Your task to perform on an android device: Open the calendar and show me this week's events? Image 0: 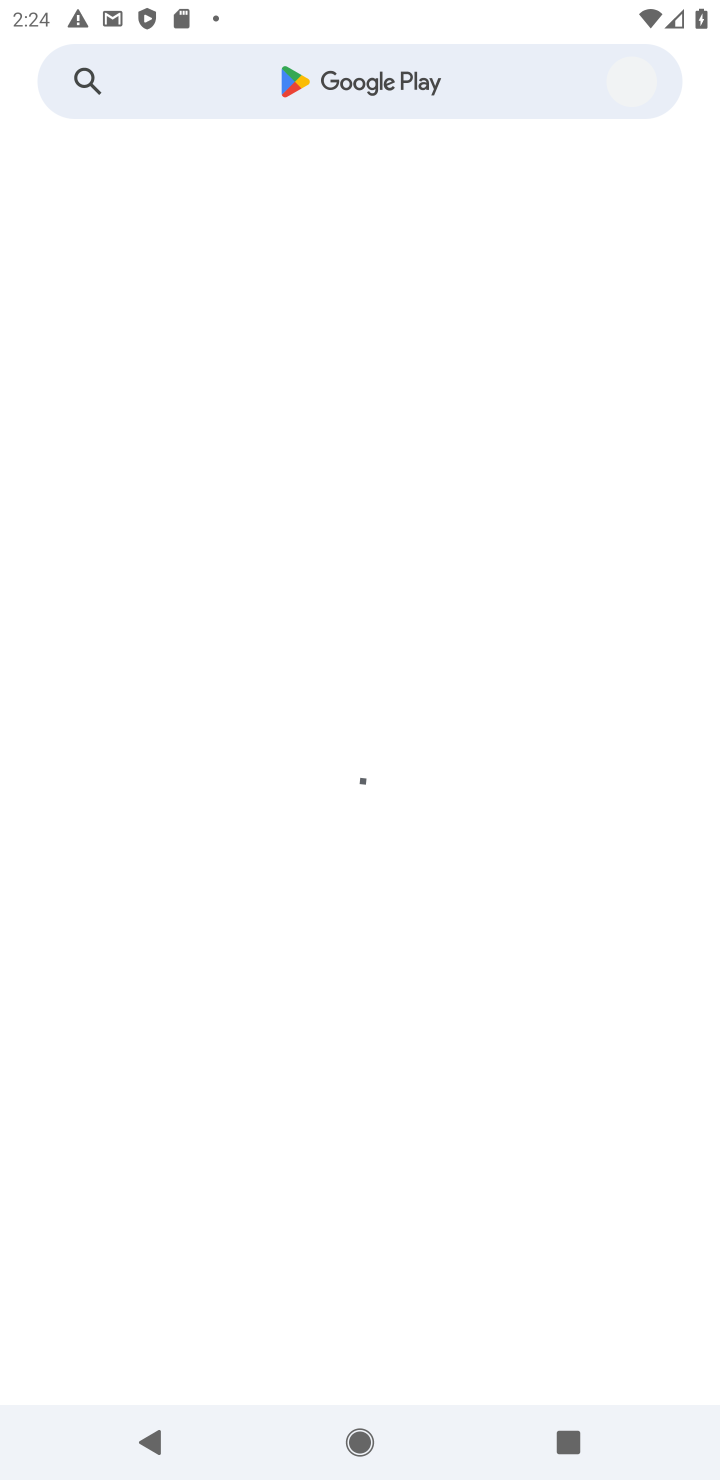
Step 0: press home button
Your task to perform on an android device: Open the calendar and show me this week's events? Image 1: 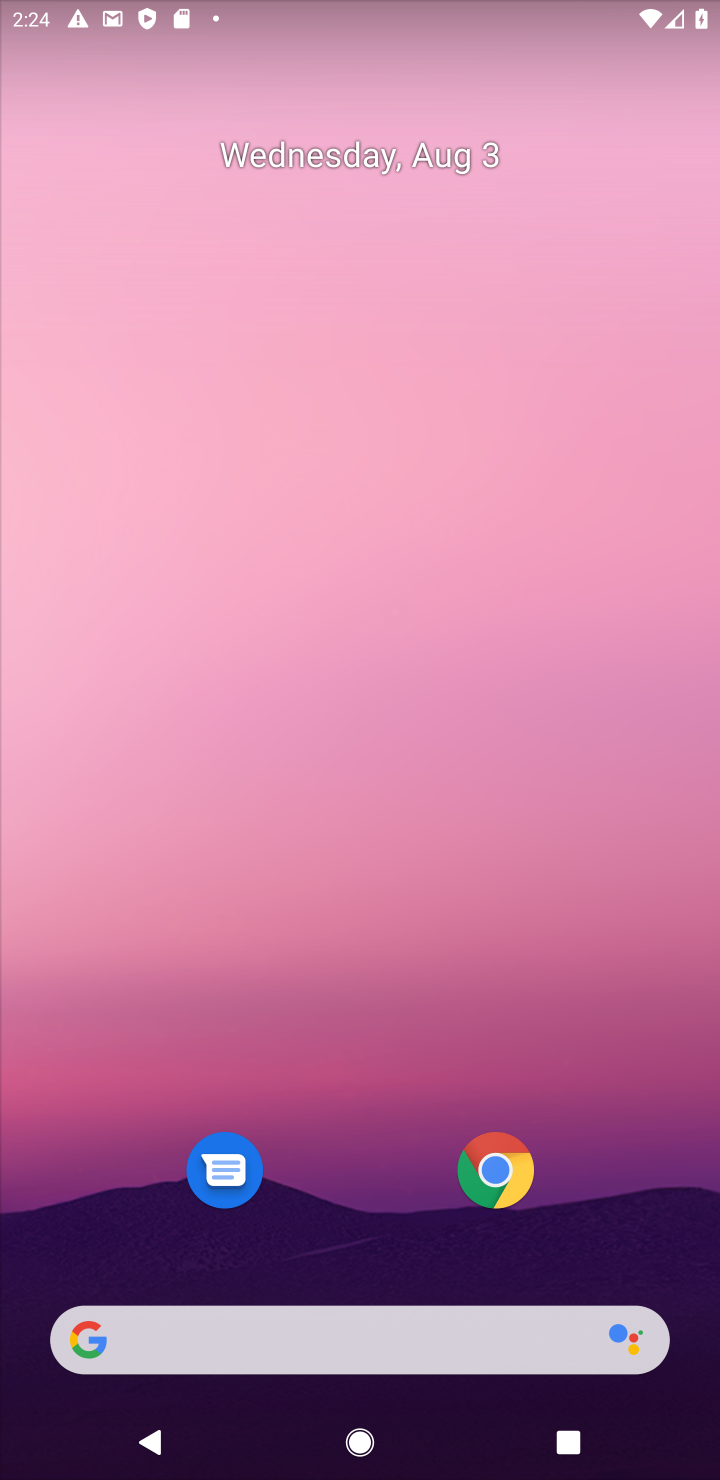
Step 1: drag from (352, 1243) to (369, 980)
Your task to perform on an android device: Open the calendar and show me this week's events? Image 2: 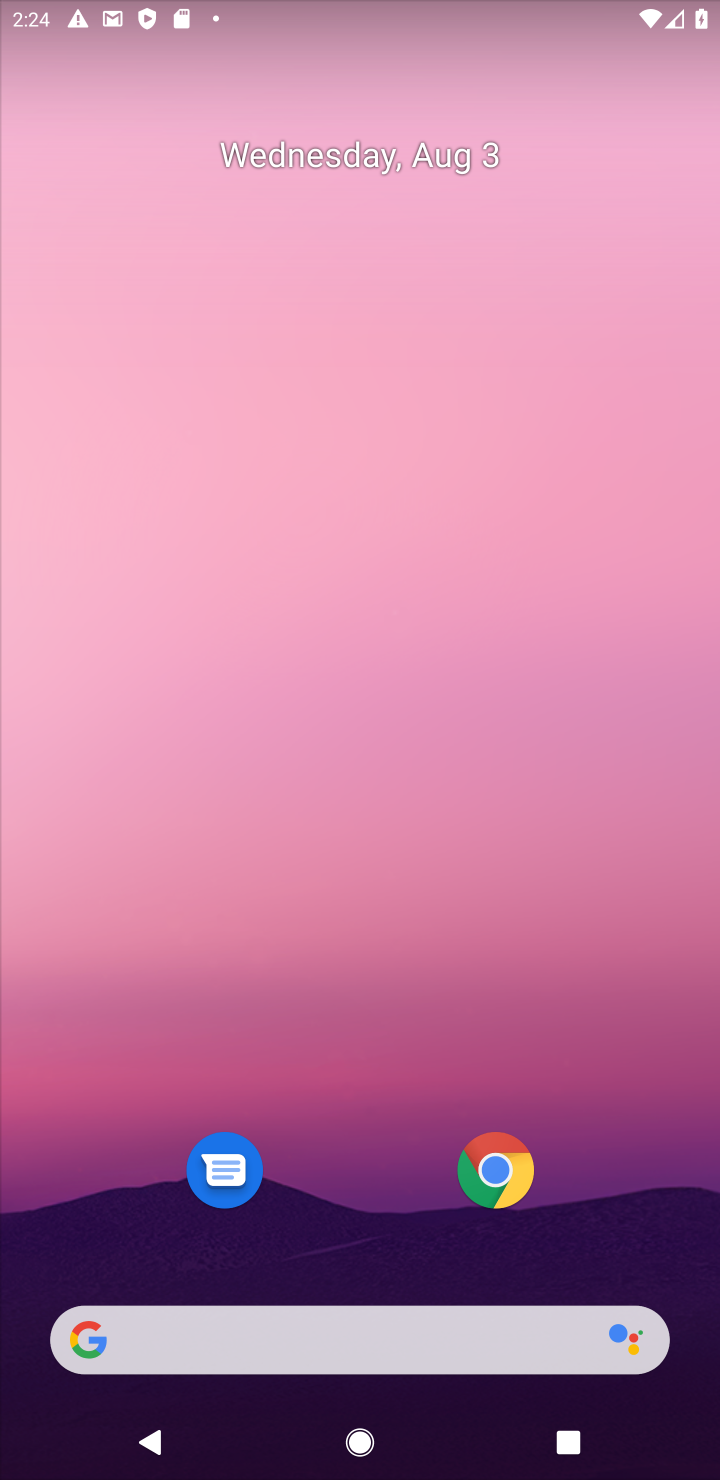
Step 2: drag from (340, 1234) to (356, 82)
Your task to perform on an android device: Open the calendar and show me this week's events? Image 3: 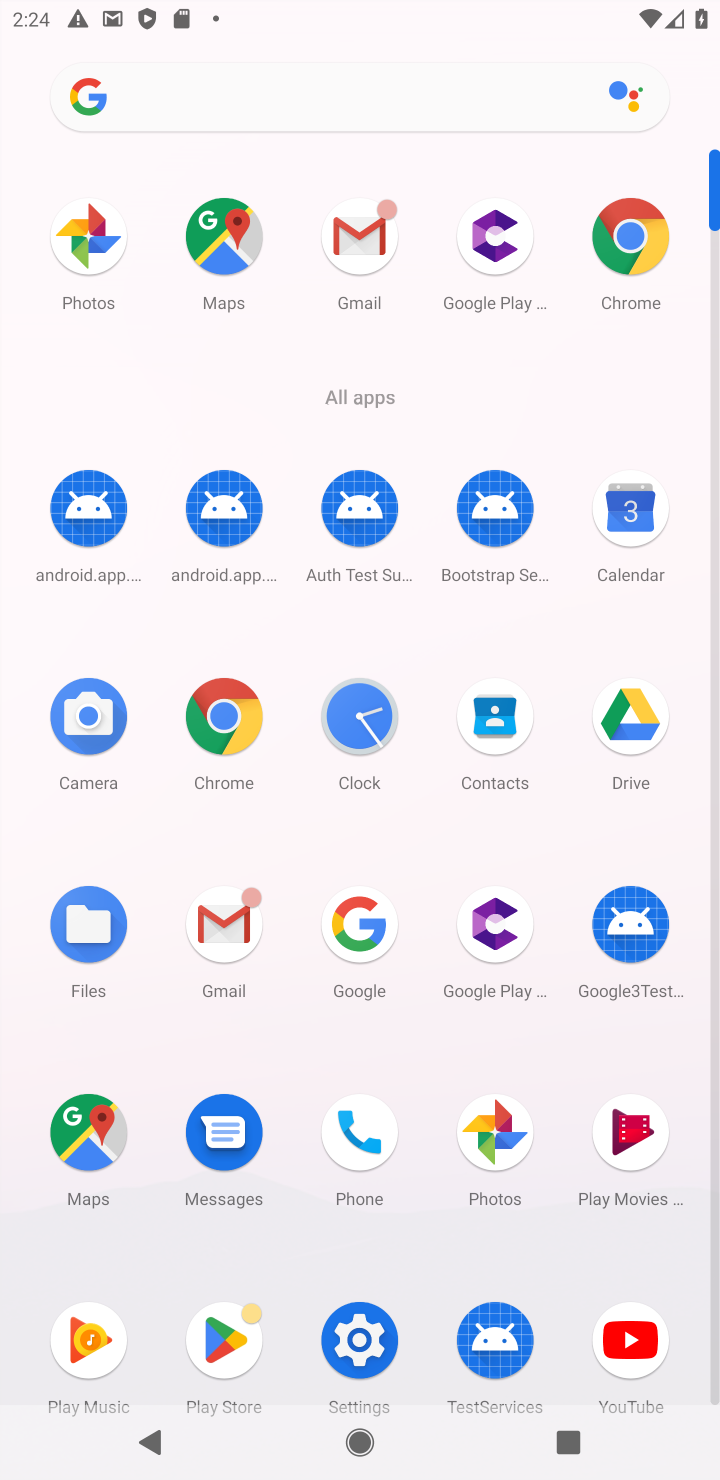
Step 3: click (622, 518)
Your task to perform on an android device: Open the calendar and show me this week's events? Image 4: 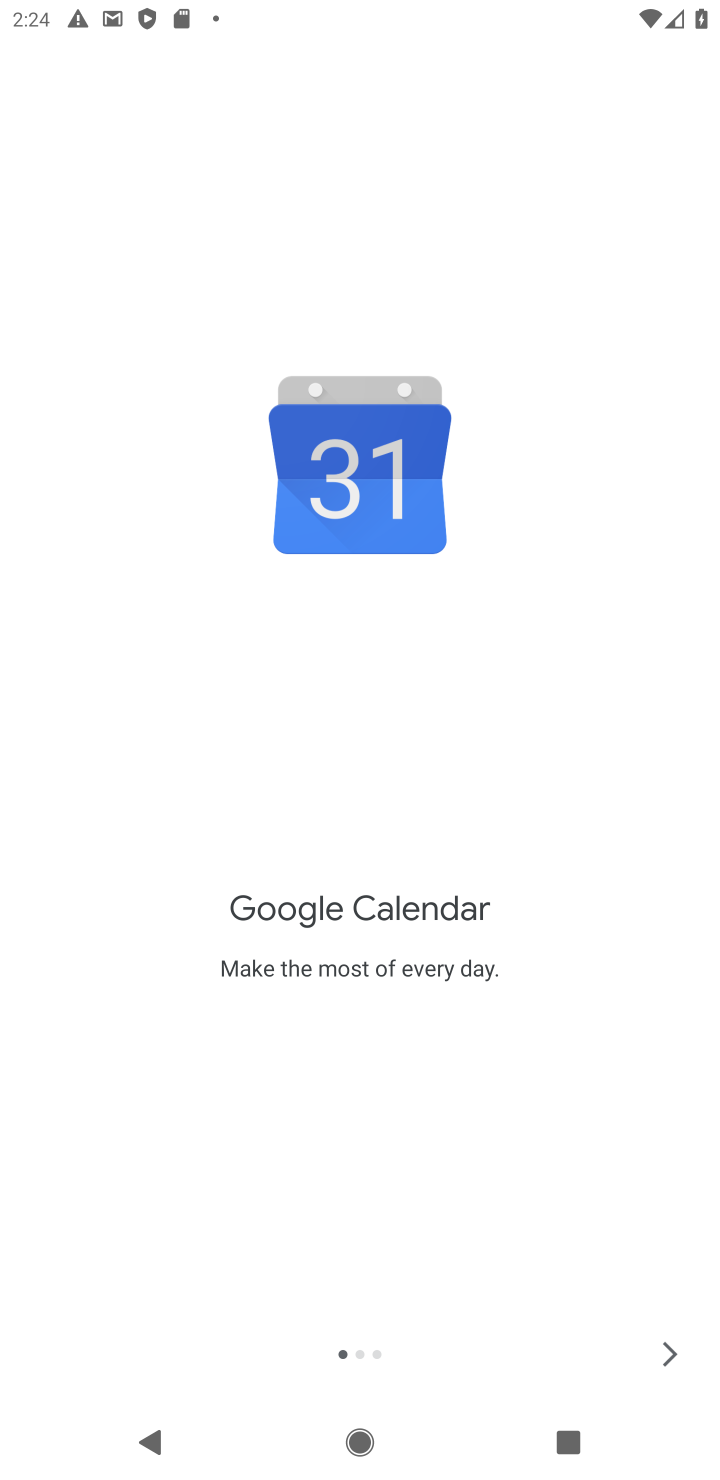
Step 4: click (666, 1371)
Your task to perform on an android device: Open the calendar and show me this week's events? Image 5: 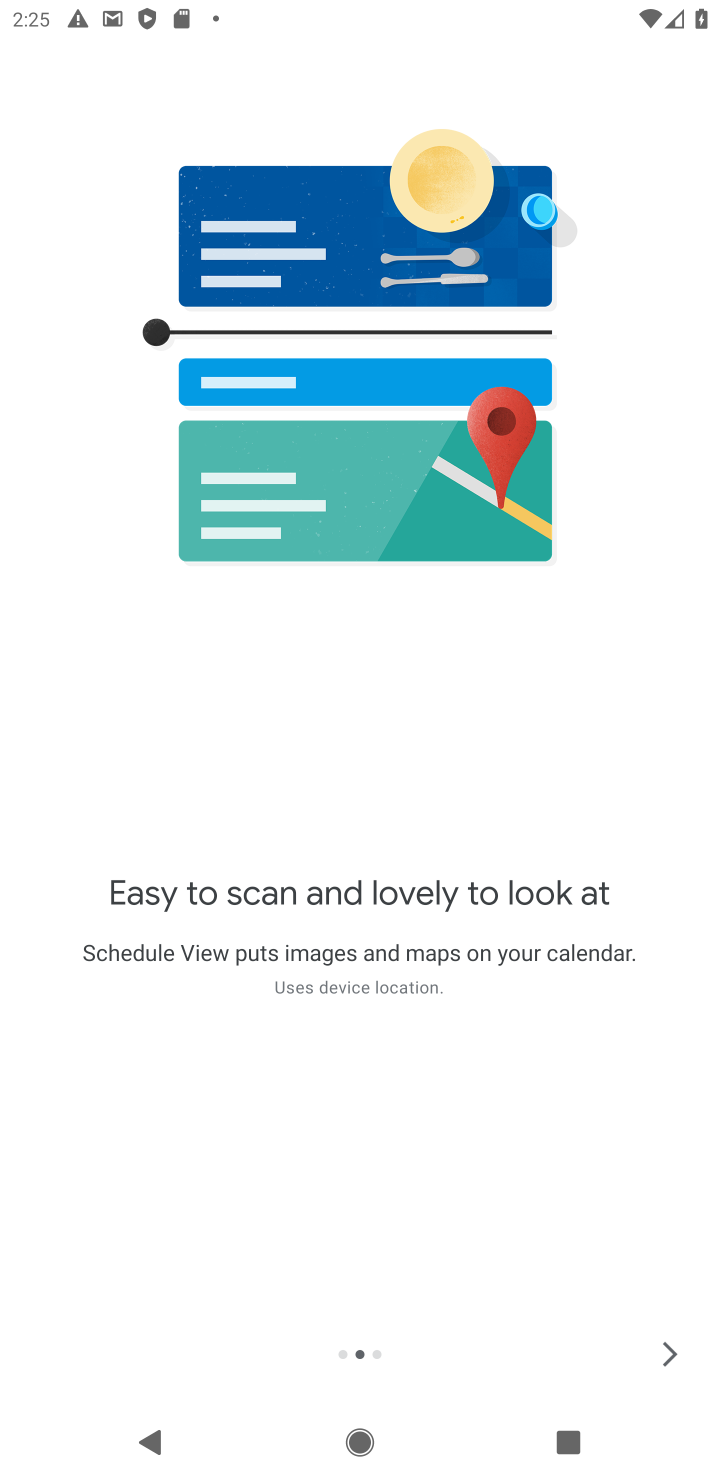
Step 5: click (666, 1371)
Your task to perform on an android device: Open the calendar and show me this week's events? Image 6: 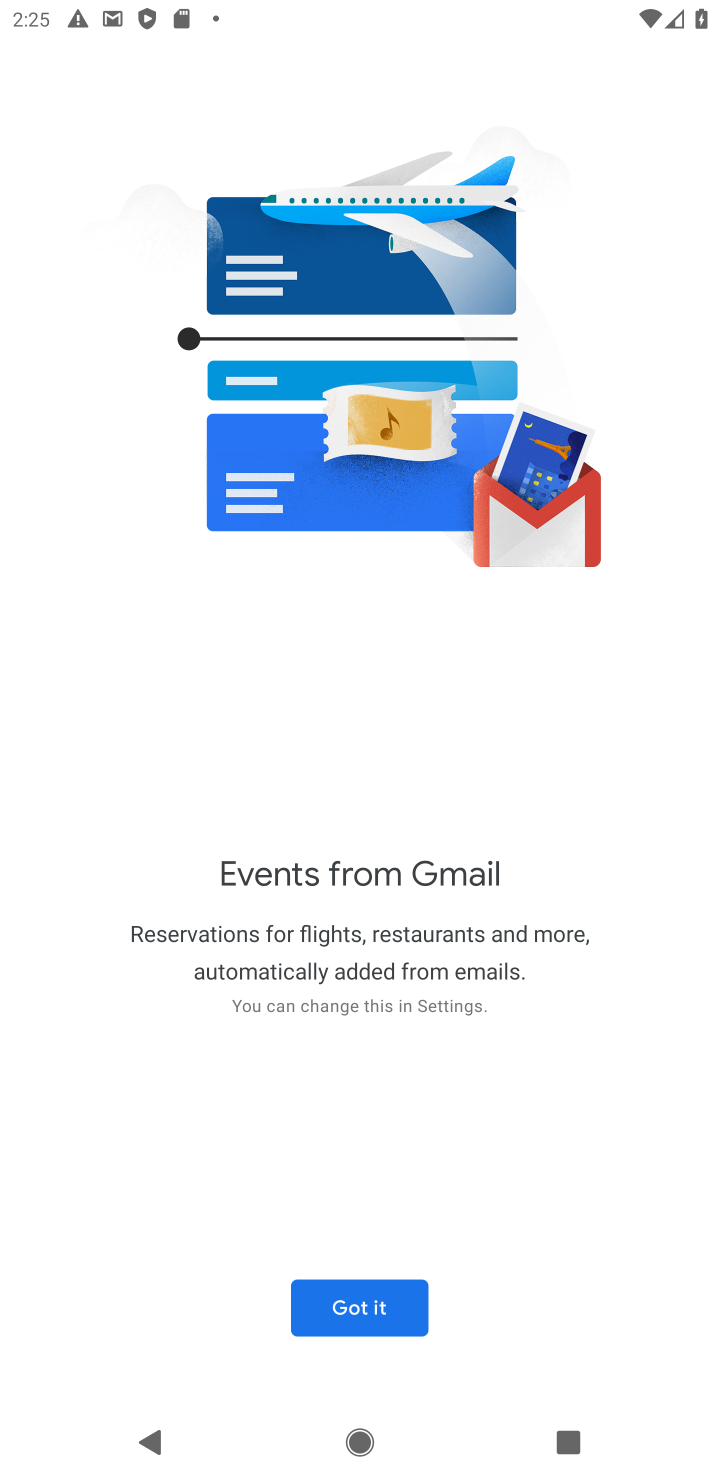
Step 6: click (399, 1328)
Your task to perform on an android device: Open the calendar and show me this week's events? Image 7: 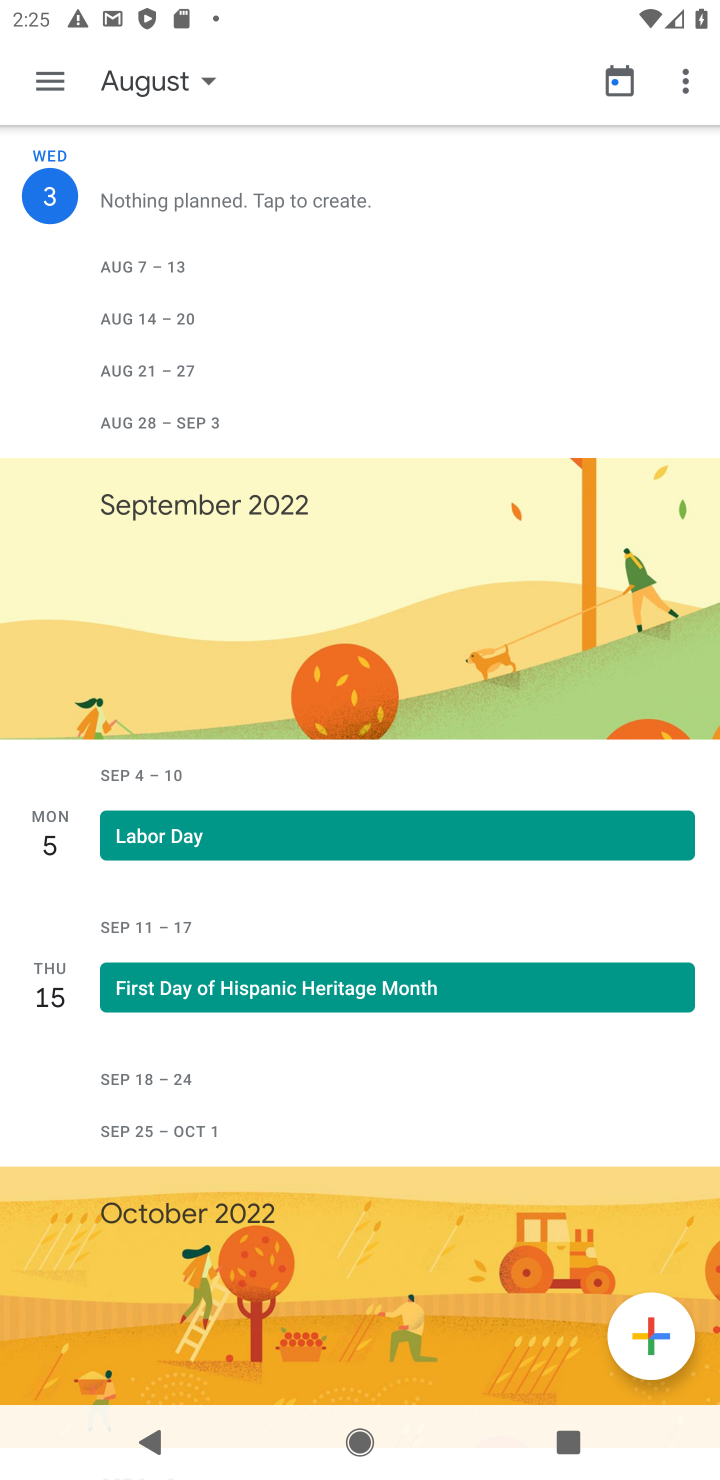
Step 7: click (194, 92)
Your task to perform on an android device: Open the calendar and show me this week's events? Image 8: 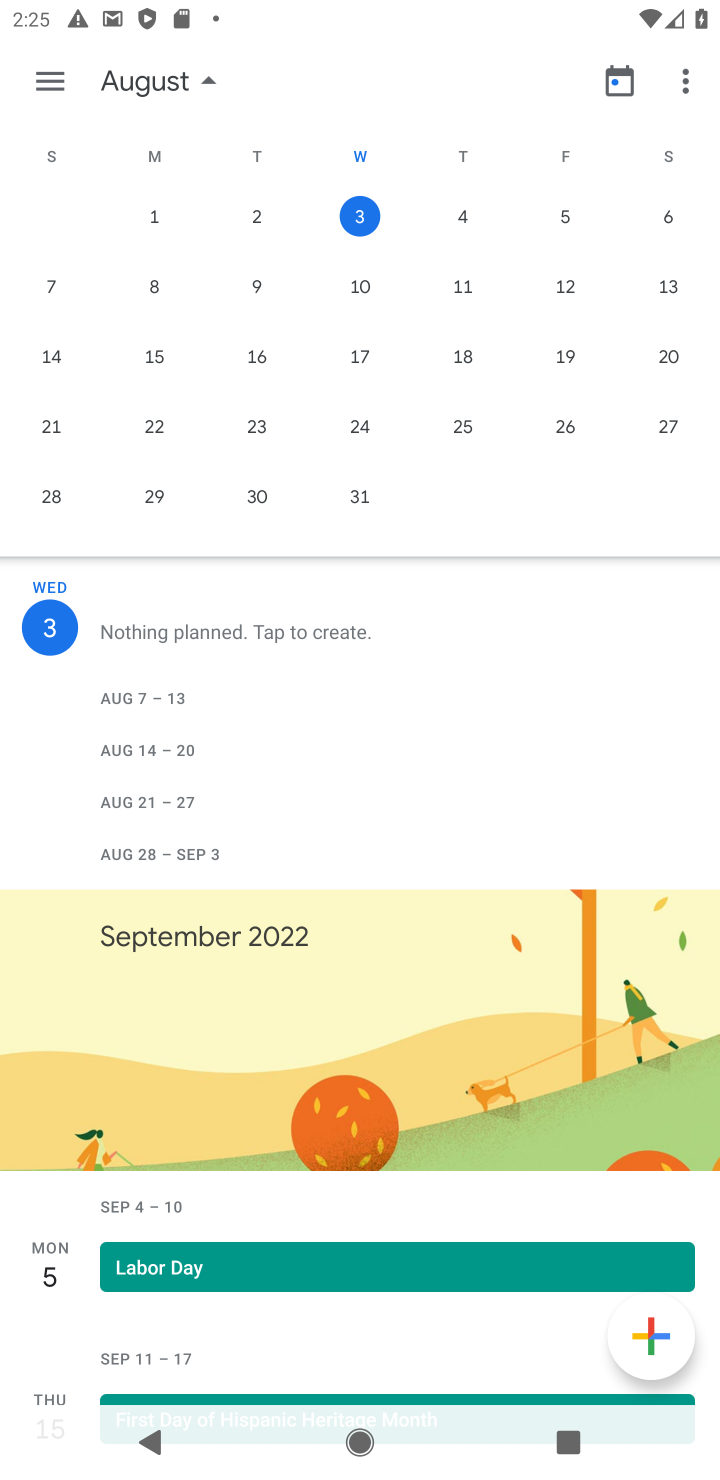
Step 8: click (468, 216)
Your task to perform on an android device: Open the calendar and show me this week's events? Image 9: 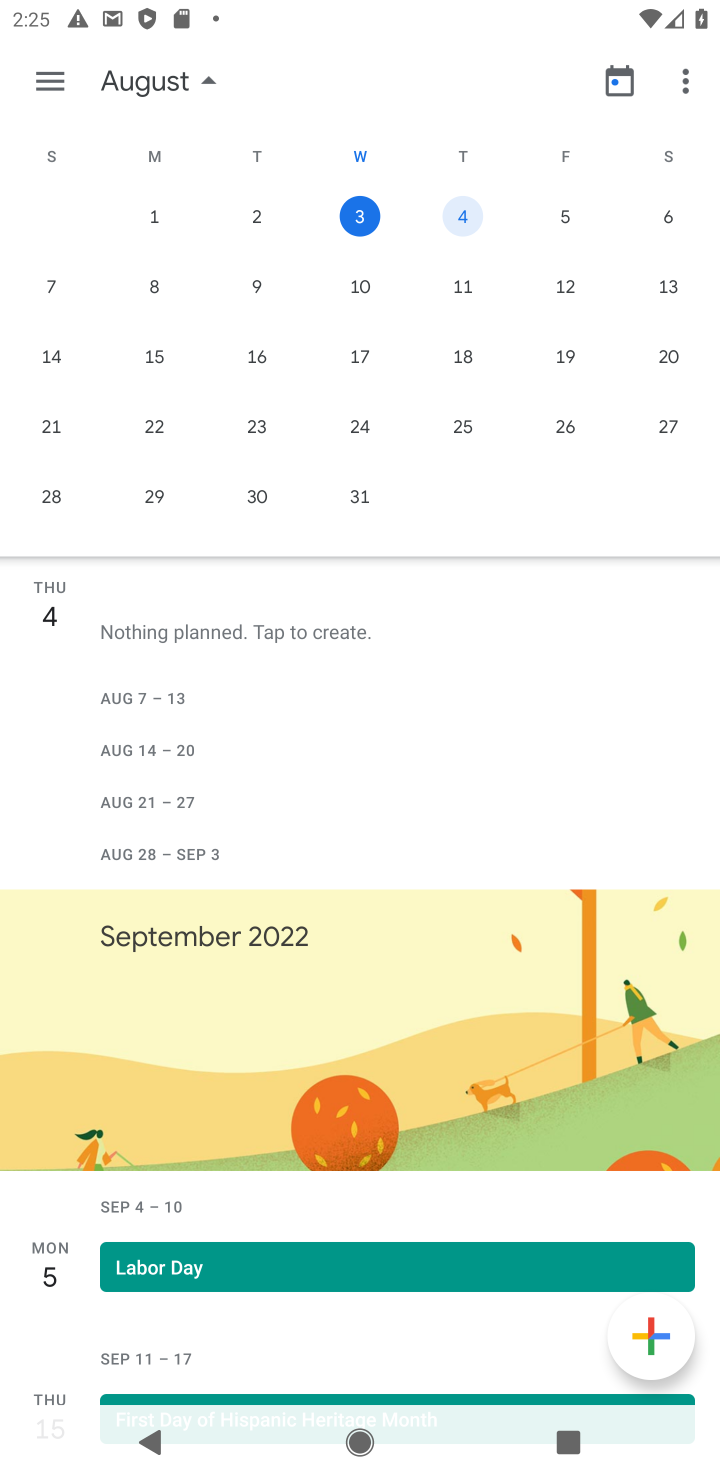
Step 9: click (552, 218)
Your task to perform on an android device: Open the calendar and show me this week's events? Image 10: 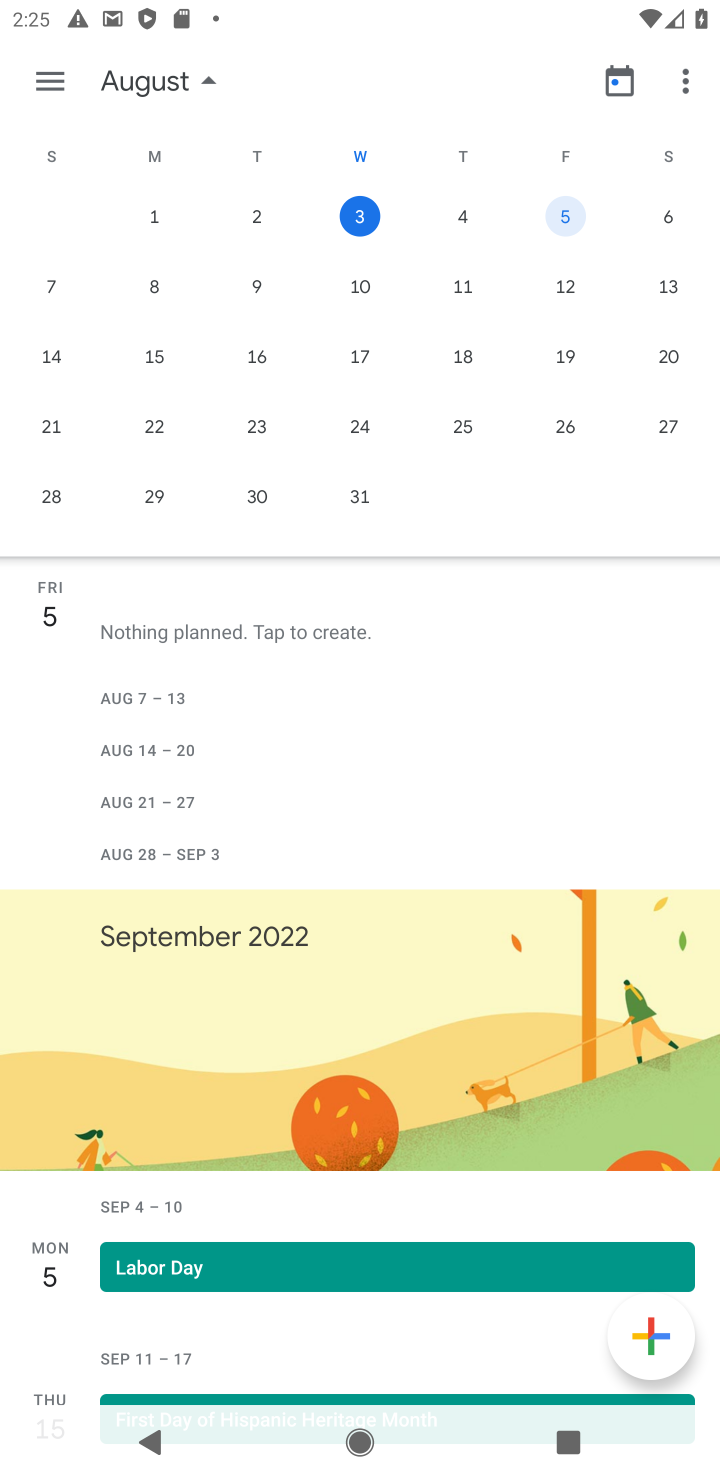
Step 10: click (655, 218)
Your task to perform on an android device: Open the calendar and show me this week's events? Image 11: 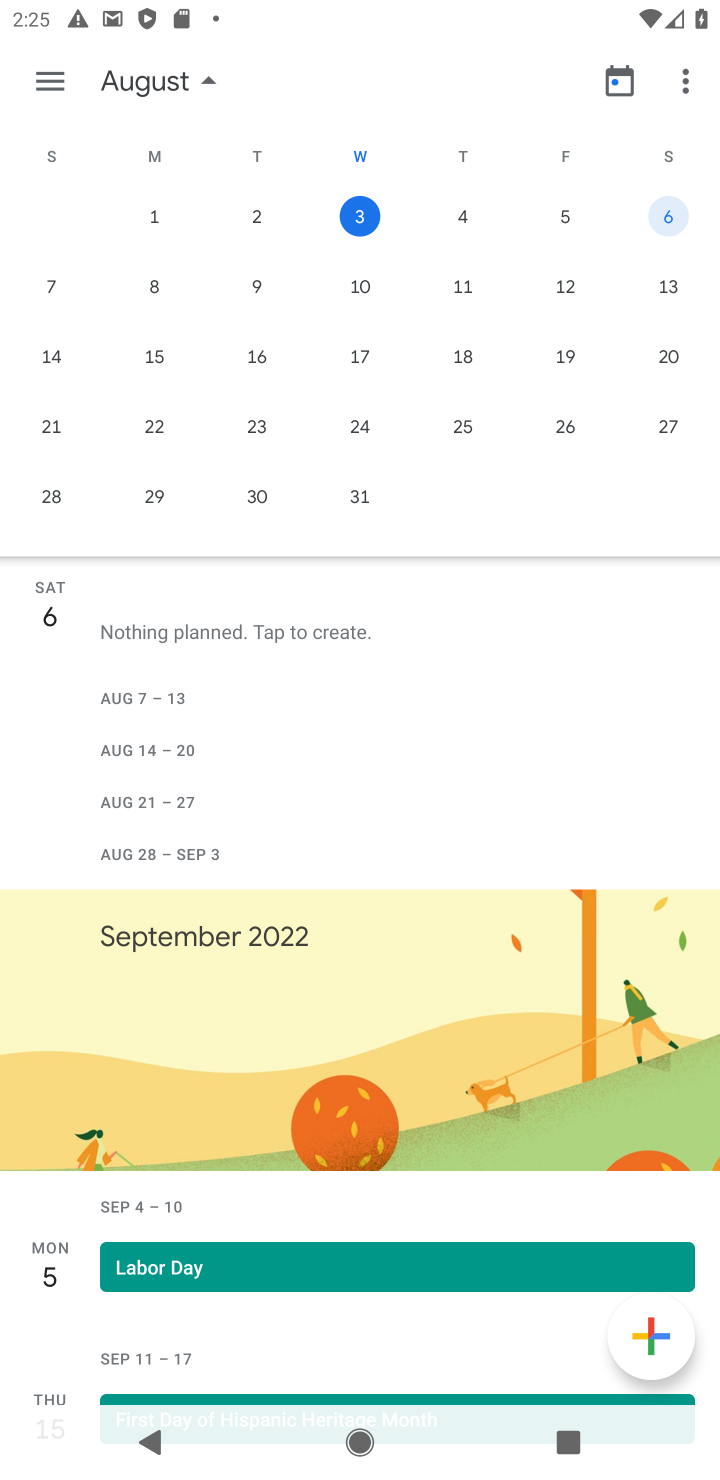
Step 11: task complete